Your task to perform on an android device: read, delete, or share a saved page in the chrome app Image 0: 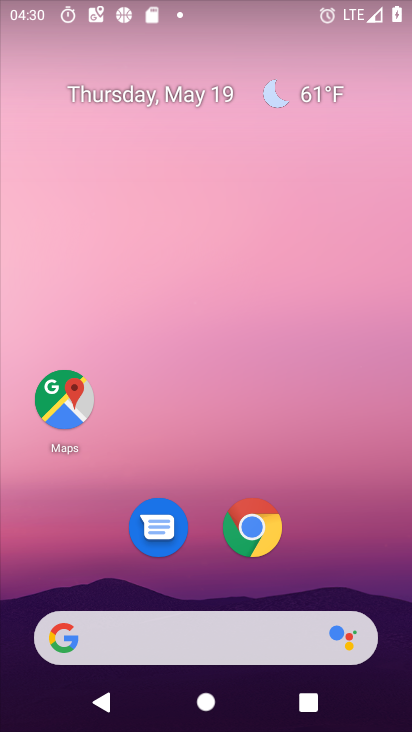
Step 0: click (270, 522)
Your task to perform on an android device: read, delete, or share a saved page in the chrome app Image 1: 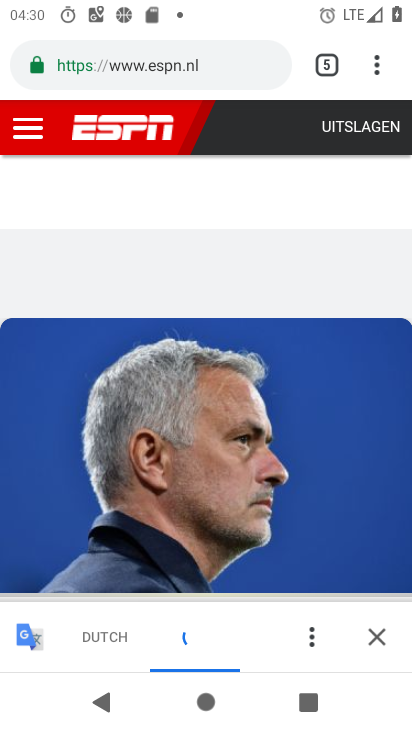
Step 1: drag from (377, 67) to (192, 213)
Your task to perform on an android device: read, delete, or share a saved page in the chrome app Image 2: 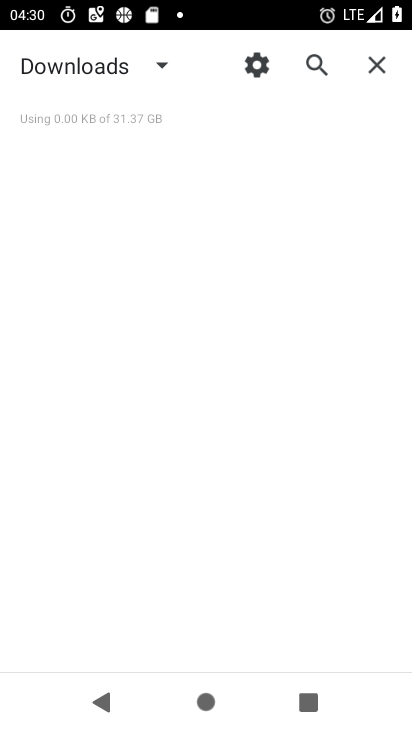
Step 2: click (168, 72)
Your task to perform on an android device: read, delete, or share a saved page in the chrome app Image 3: 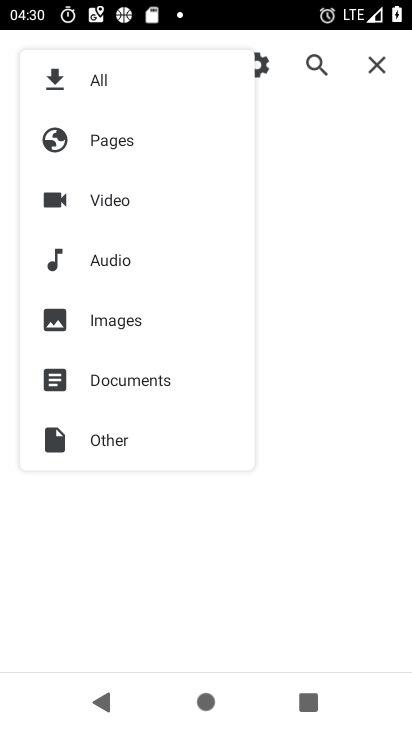
Step 3: click (121, 150)
Your task to perform on an android device: read, delete, or share a saved page in the chrome app Image 4: 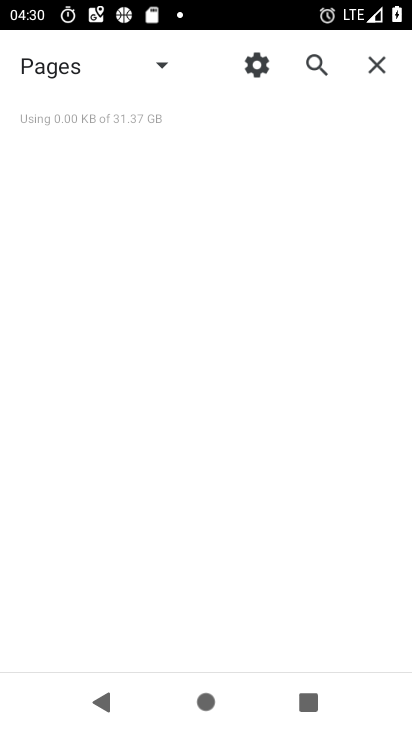
Step 4: task complete